Your task to perform on an android device: Open the Play Movies app and select the watchlist tab. Image 0: 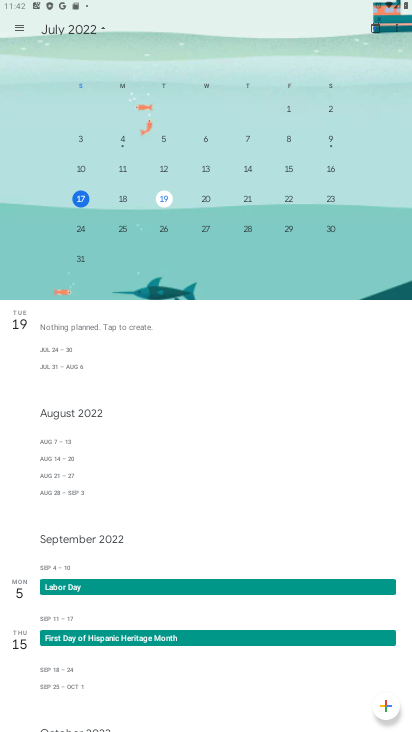
Step 0: press home button
Your task to perform on an android device: Open the Play Movies app and select the watchlist tab. Image 1: 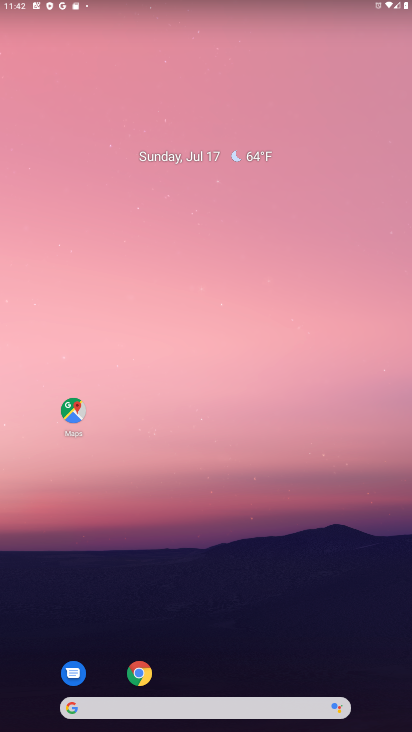
Step 1: drag from (246, 674) to (221, 139)
Your task to perform on an android device: Open the Play Movies app and select the watchlist tab. Image 2: 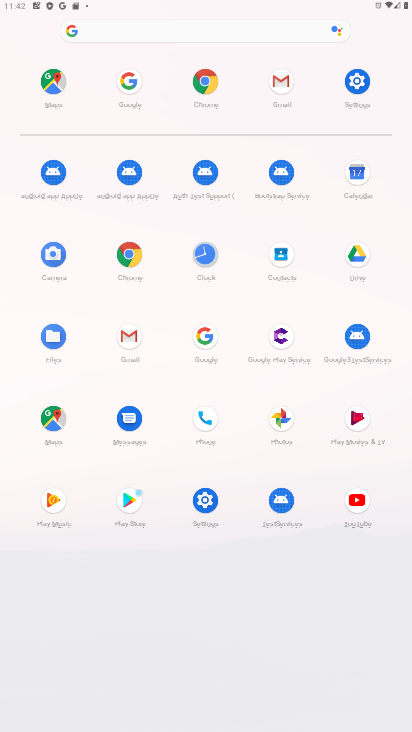
Step 2: click (358, 417)
Your task to perform on an android device: Open the Play Movies app and select the watchlist tab. Image 3: 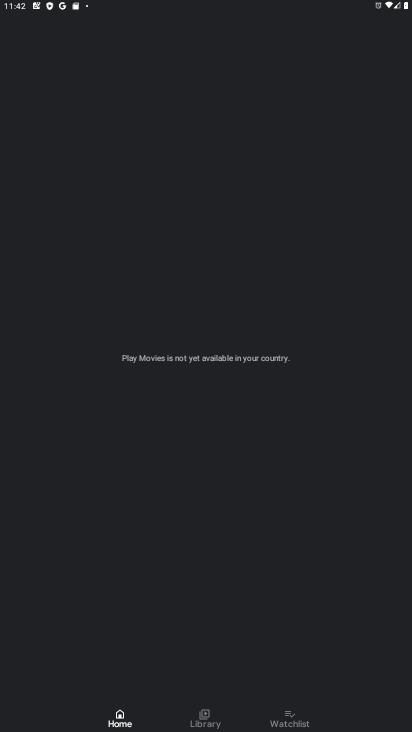
Step 3: click (292, 715)
Your task to perform on an android device: Open the Play Movies app and select the watchlist tab. Image 4: 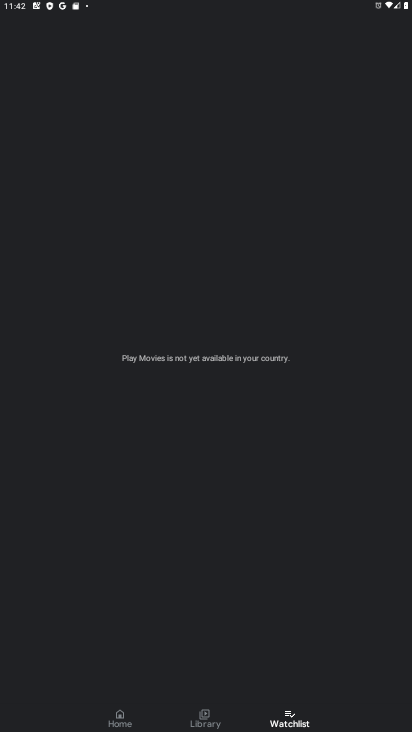
Step 4: task complete